Your task to perform on an android device: Go to eBay Image 0: 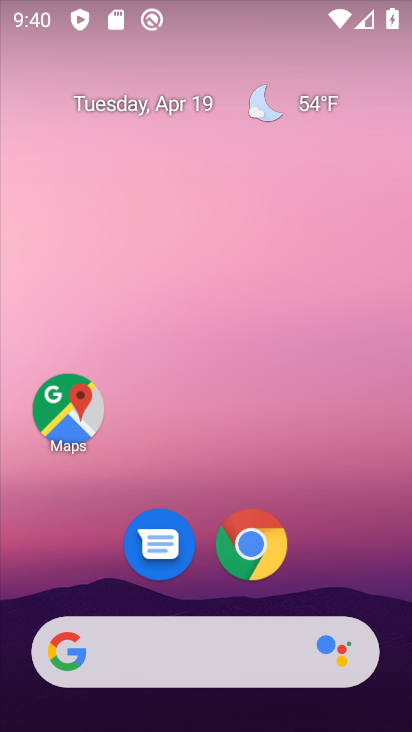
Step 0: click (271, 555)
Your task to perform on an android device: Go to eBay Image 1: 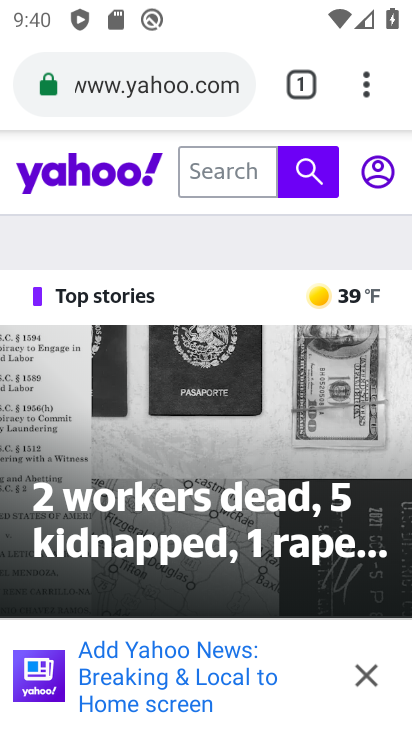
Step 1: click (117, 96)
Your task to perform on an android device: Go to eBay Image 2: 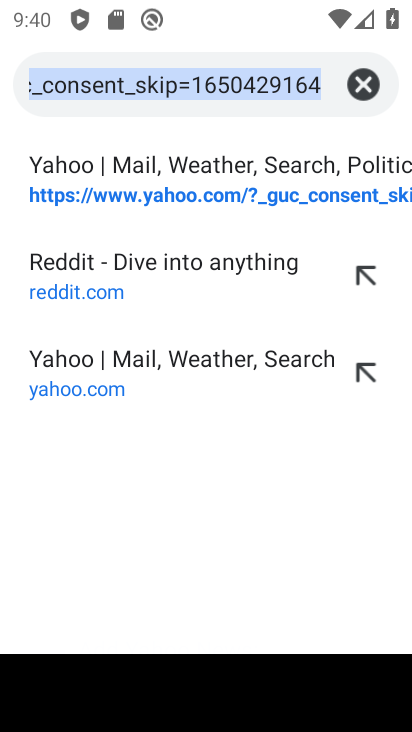
Step 2: type "ebay"
Your task to perform on an android device: Go to eBay Image 3: 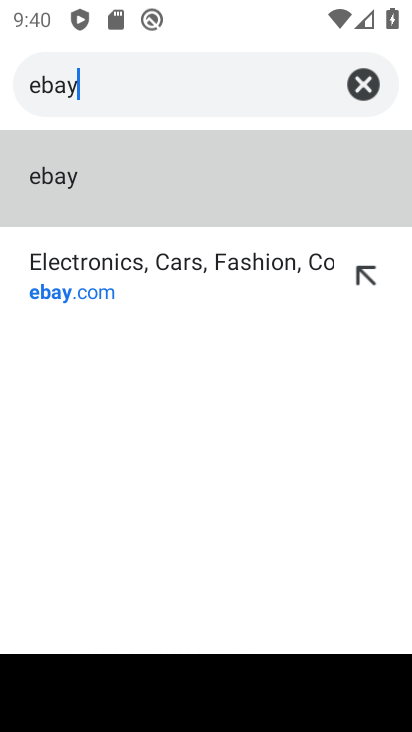
Step 3: click (76, 285)
Your task to perform on an android device: Go to eBay Image 4: 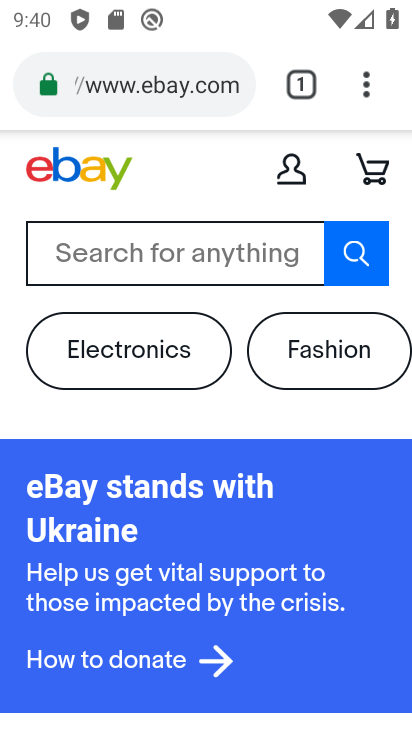
Step 4: task complete